Your task to perform on an android device: Open notification settings Image 0: 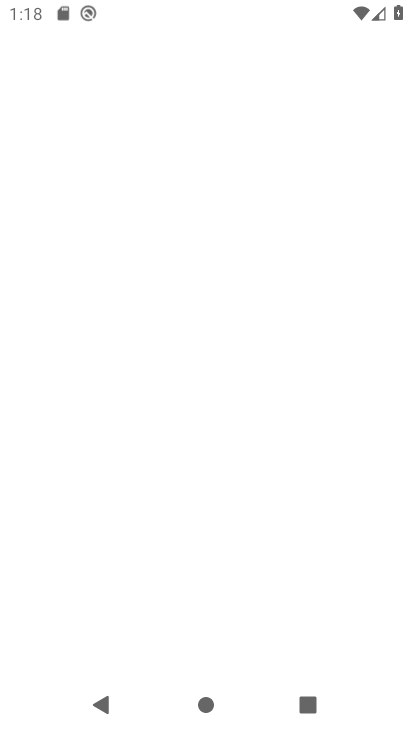
Step 0: press home button
Your task to perform on an android device: Open notification settings Image 1: 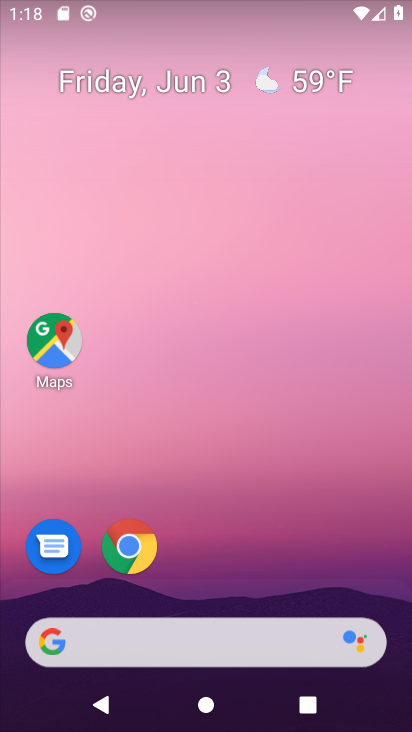
Step 1: drag from (381, 534) to (364, 91)
Your task to perform on an android device: Open notification settings Image 2: 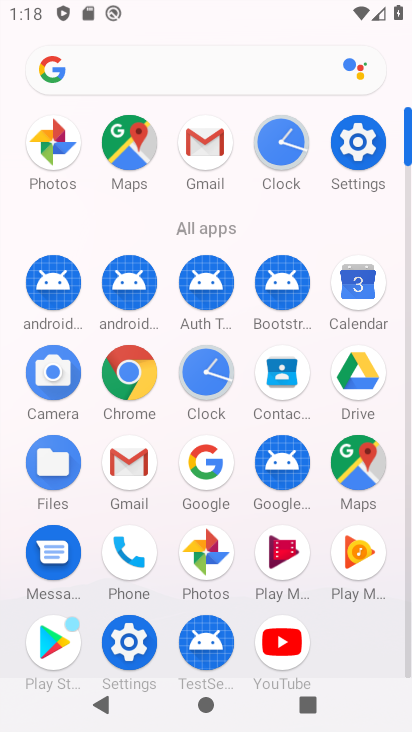
Step 2: click (377, 151)
Your task to perform on an android device: Open notification settings Image 3: 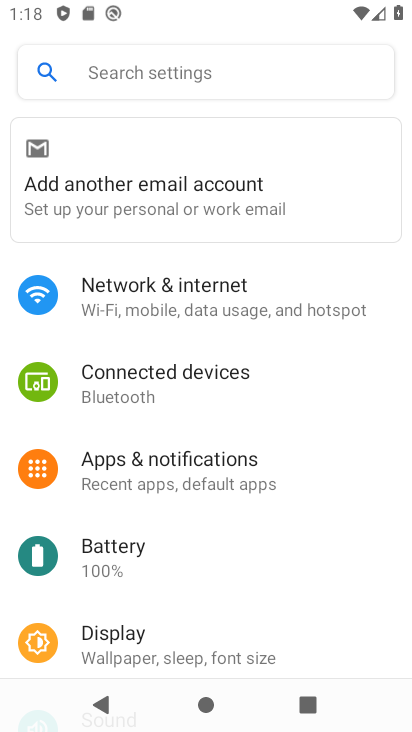
Step 3: click (231, 456)
Your task to perform on an android device: Open notification settings Image 4: 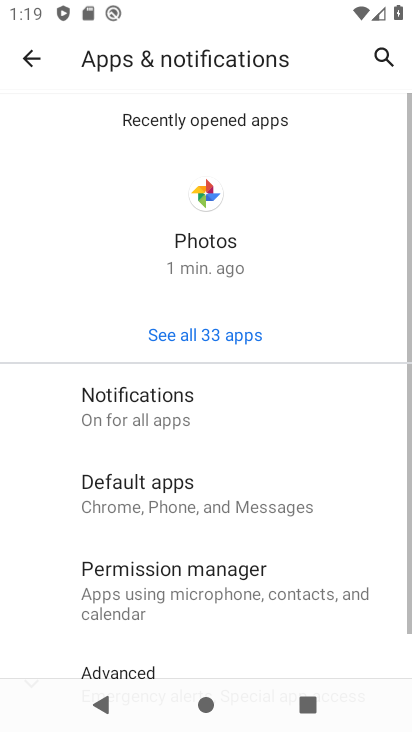
Step 4: click (205, 410)
Your task to perform on an android device: Open notification settings Image 5: 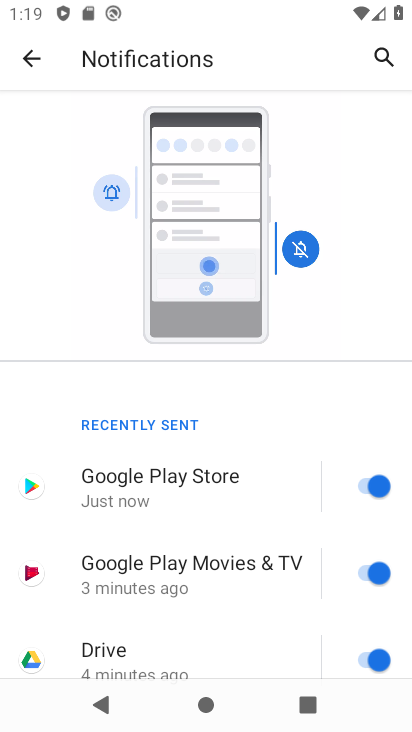
Step 5: task complete